Your task to perform on an android device: Open Youtube and go to the subscriptions tab Image 0: 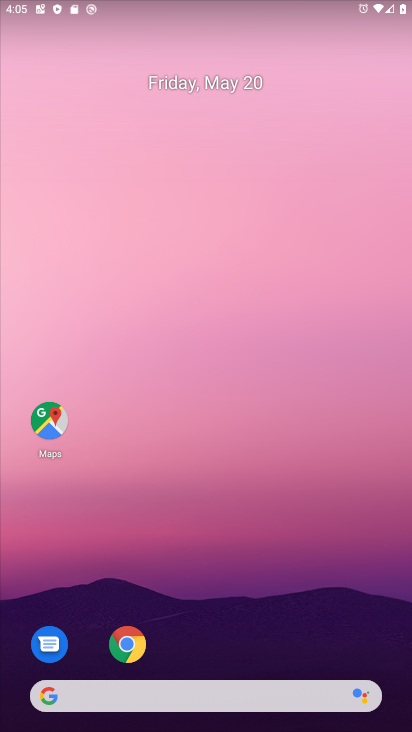
Step 0: drag from (259, 646) to (222, 144)
Your task to perform on an android device: Open Youtube and go to the subscriptions tab Image 1: 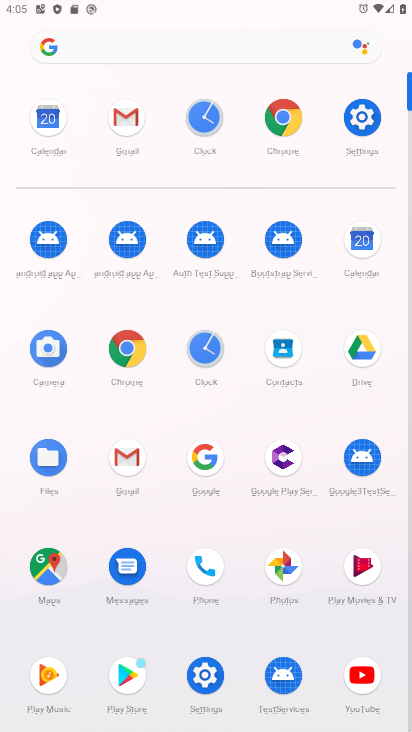
Step 1: click (366, 671)
Your task to perform on an android device: Open Youtube and go to the subscriptions tab Image 2: 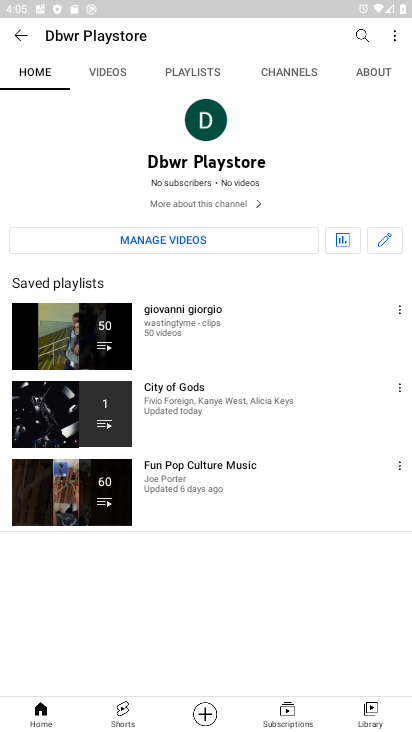
Step 2: press home button
Your task to perform on an android device: Open Youtube and go to the subscriptions tab Image 3: 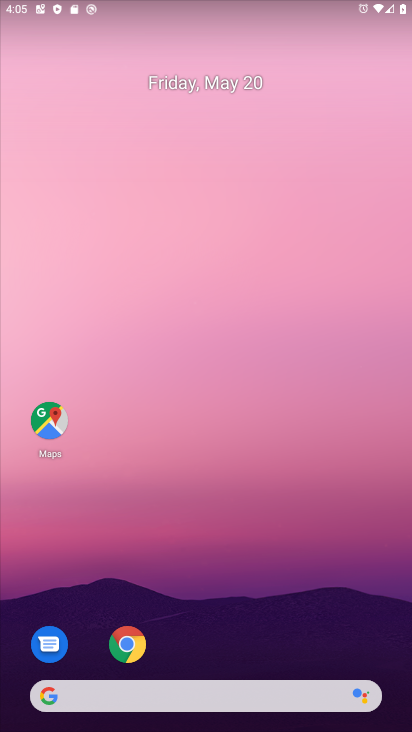
Step 3: drag from (400, 616) to (333, 278)
Your task to perform on an android device: Open Youtube and go to the subscriptions tab Image 4: 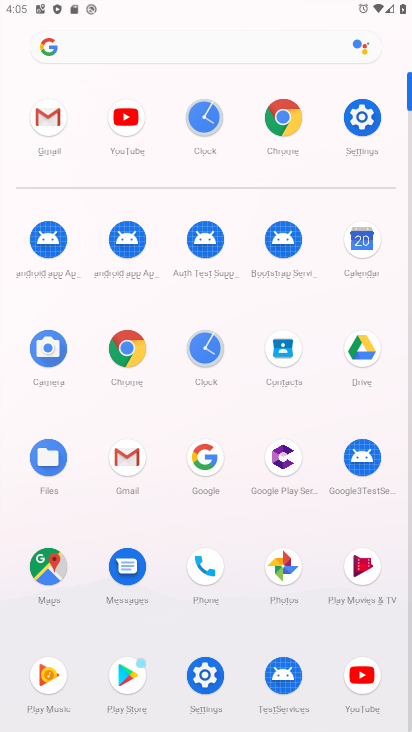
Step 4: click (136, 120)
Your task to perform on an android device: Open Youtube and go to the subscriptions tab Image 5: 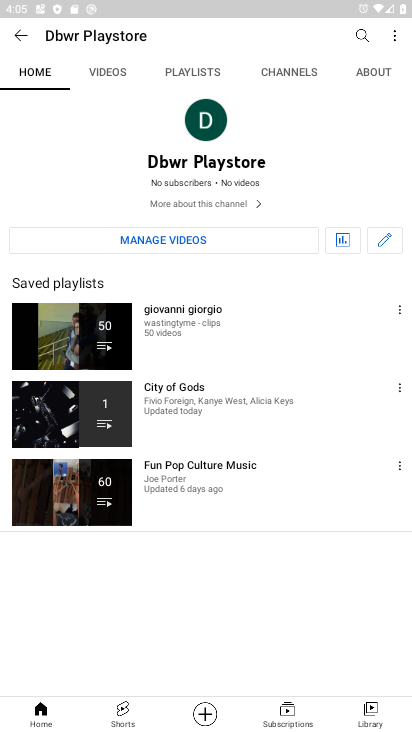
Step 5: click (383, 714)
Your task to perform on an android device: Open Youtube and go to the subscriptions tab Image 6: 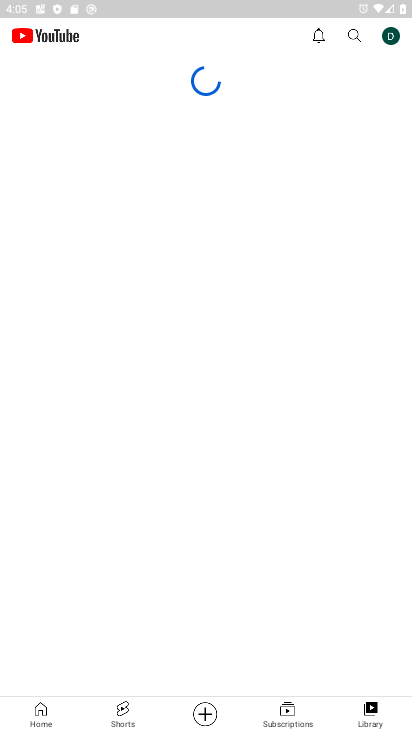
Step 6: click (287, 718)
Your task to perform on an android device: Open Youtube and go to the subscriptions tab Image 7: 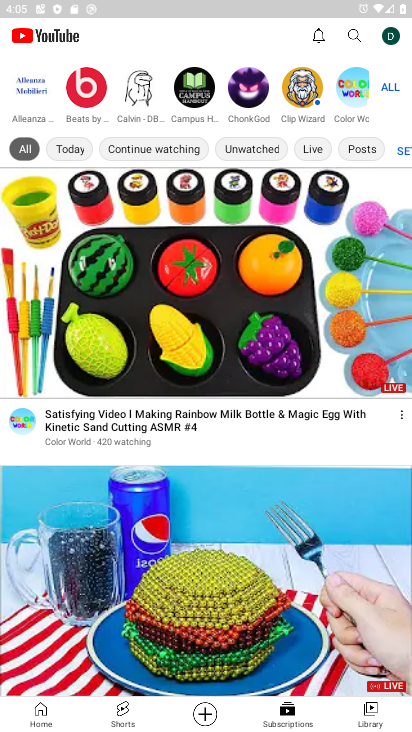
Step 7: task complete